Your task to perform on an android device: turn on priority inbox in the gmail app Image 0: 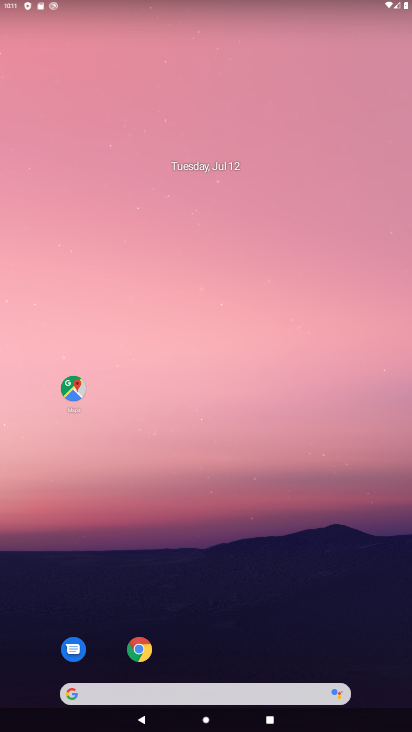
Step 0: drag from (372, 639) to (304, 171)
Your task to perform on an android device: turn on priority inbox in the gmail app Image 1: 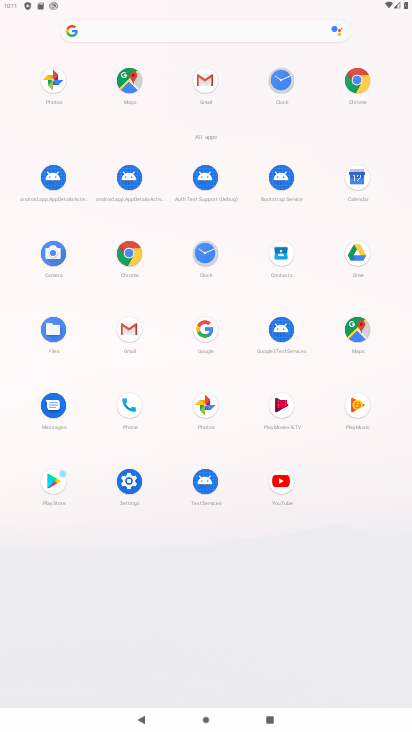
Step 1: click (130, 330)
Your task to perform on an android device: turn on priority inbox in the gmail app Image 2: 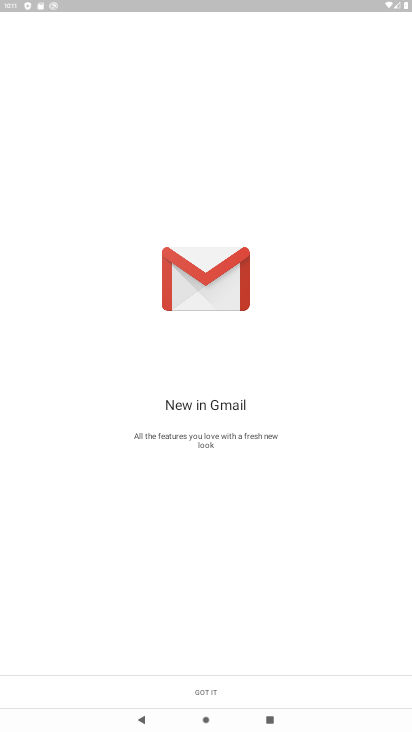
Step 2: click (208, 698)
Your task to perform on an android device: turn on priority inbox in the gmail app Image 3: 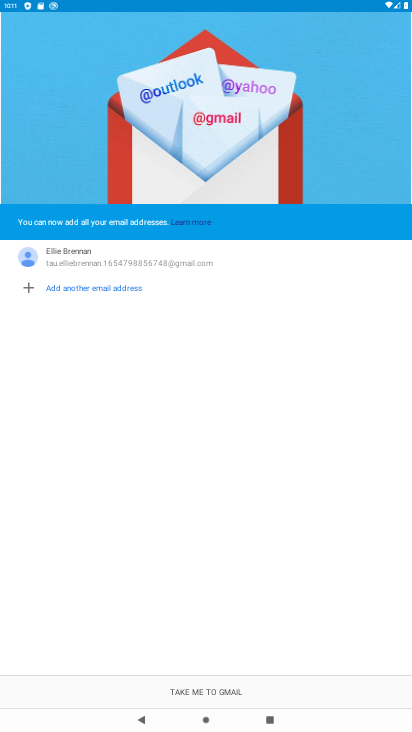
Step 3: click (206, 681)
Your task to perform on an android device: turn on priority inbox in the gmail app Image 4: 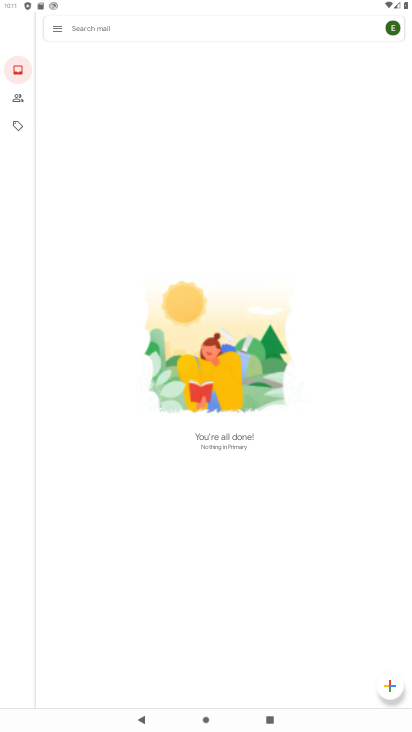
Step 4: click (55, 26)
Your task to perform on an android device: turn on priority inbox in the gmail app Image 5: 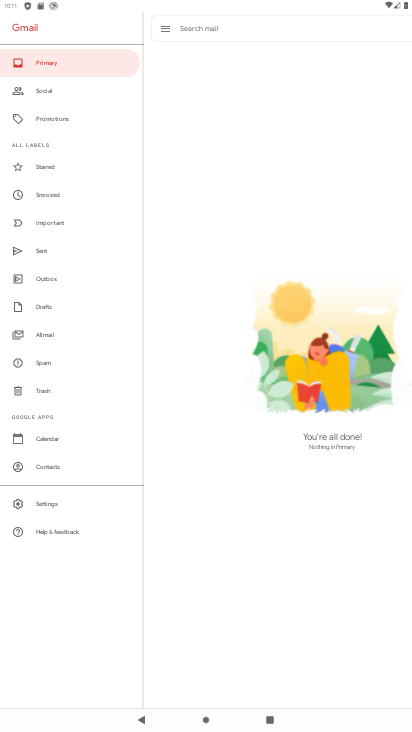
Step 5: click (49, 501)
Your task to perform on an android device: turn on priority inbox in the gmail app Image 6: 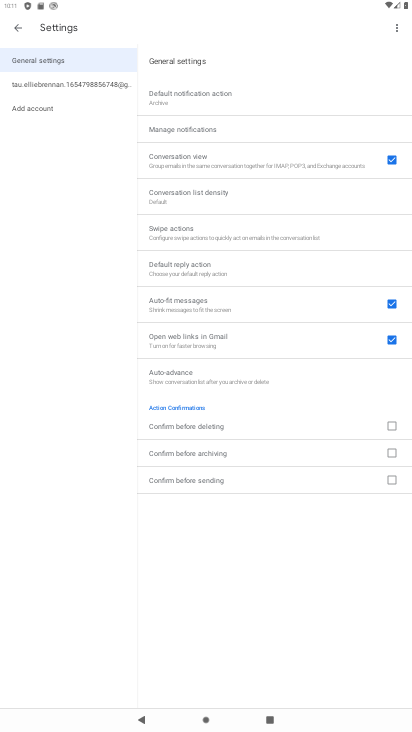
Step 6: click (65, 84)
Your task to perform on an android device: turn on priority inbox in the gmail app Image 7: 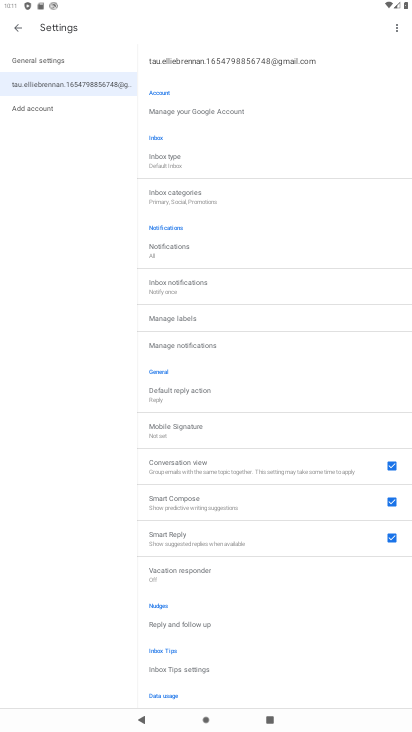
Step 7: click (167, 158)
Your task to perform on an android device: turn on priority inbox in the gmail app Image 8: 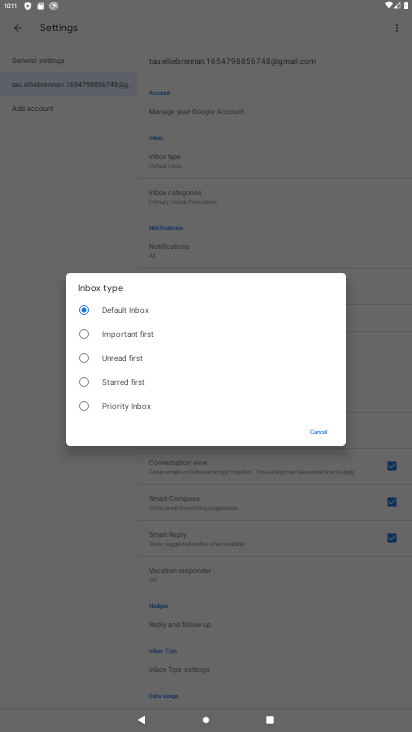
Step 8: click (80, 407)
Your task to perform on an android device: turn on priority inbox in the gmail app Image 9: 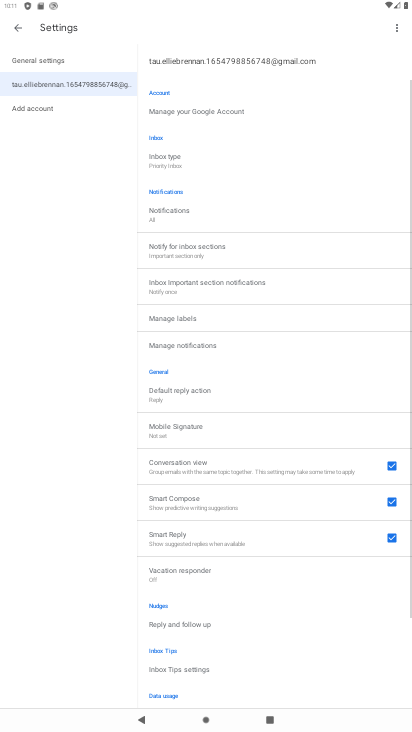
Step 9: task complete